Your task to perform on an android device: turn on priority inbox in the gmail app Image 0: 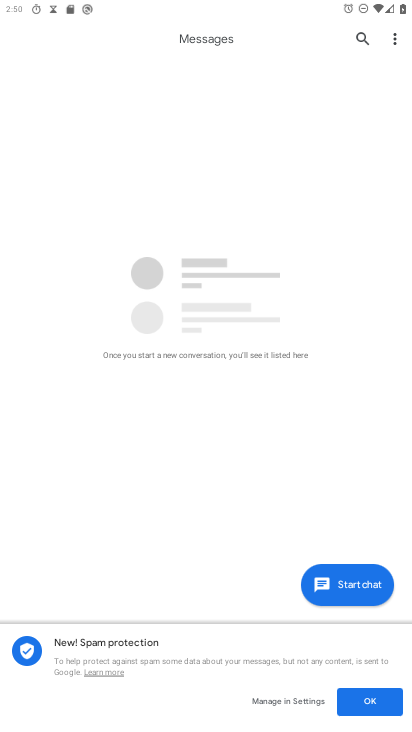
Step 0: press home button
Your task to perform on an android device: turn on priority inbox in the gmail app Image 1: 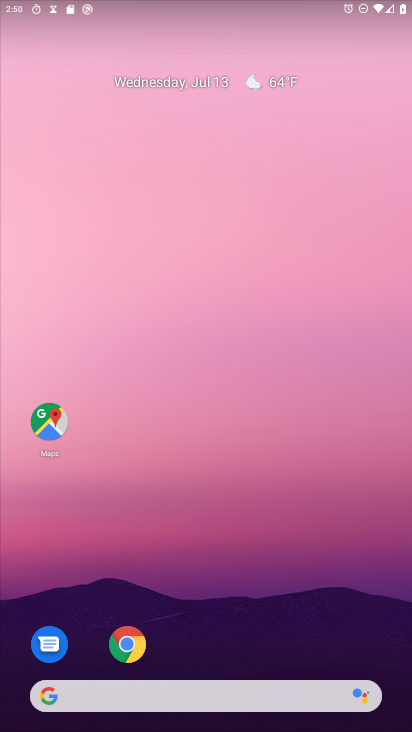
Step 1: drag from (294, 594) to (318, 80)
Your task to perform on an android device: turn on priority inbox in the gmail app Image 2: 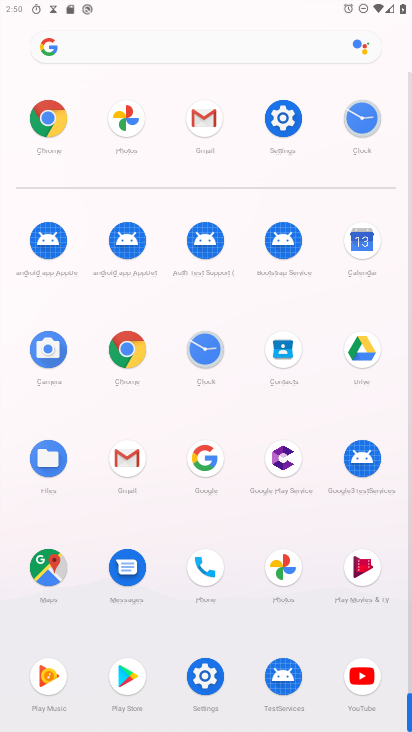
Step 2: click (205, 117)
Your task to perform on an android device: turn on priority inbox in the gmail app Image 3: 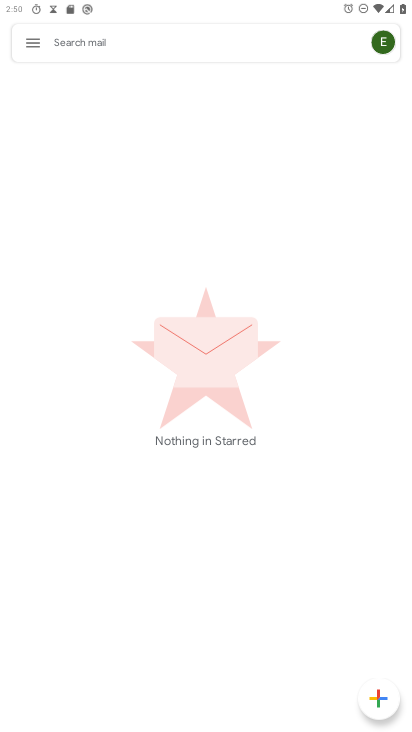
Step 3: click (25, 42)
Your task to perform on an android device: turn on priority inbox in the gmail app Image 4: 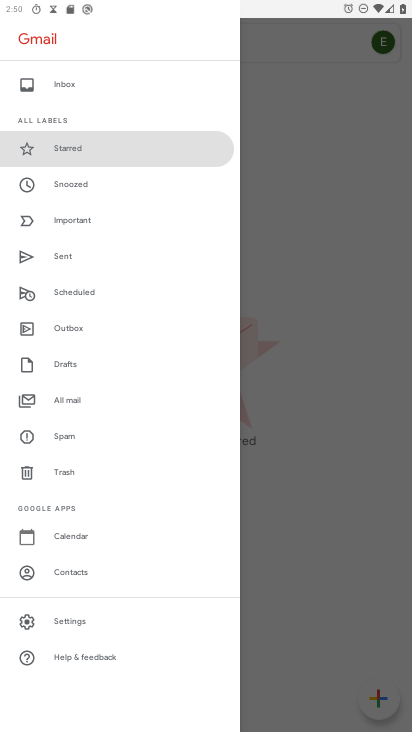
Step 4: click (60, 615)
Your task to perform on an android device: turn on priority inbox in the gmail app Image 5: 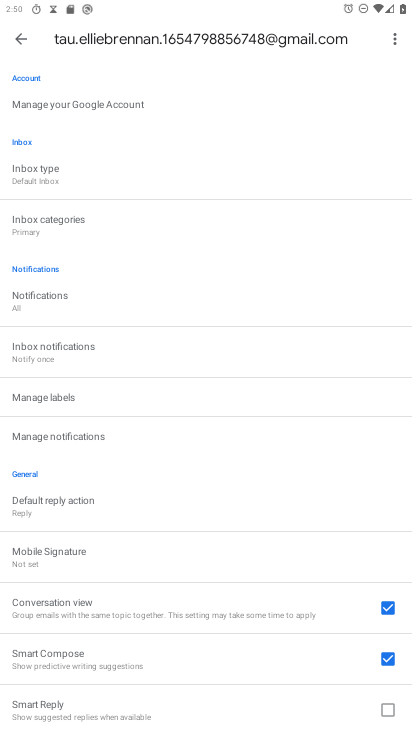
Step 5: click (26, 171)
Your task to perform on an android device: turn on priority inbox in the gmail app Image 6: 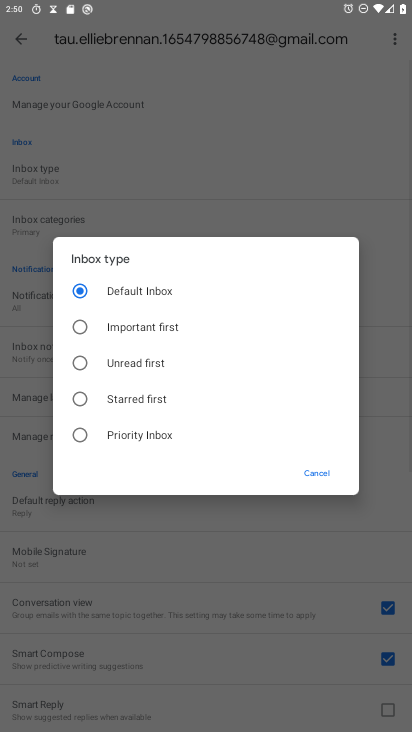
Step 6: click (79, 437)
Your task to perform on an android device: turn on priority inbox in the gmail app Image 7: 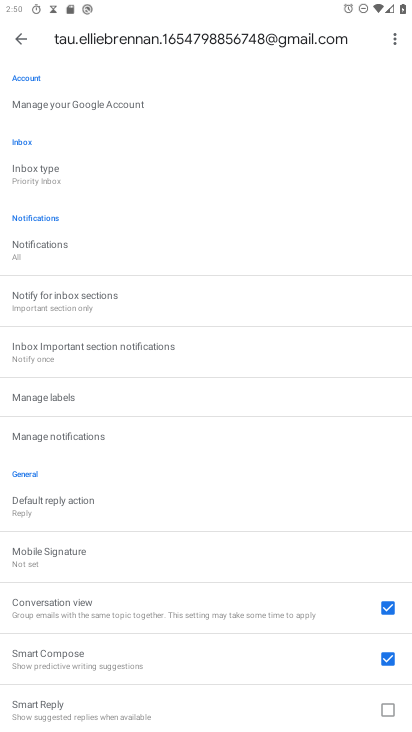
Step 7: task complete